Your task to perform on an android device: add a label to a message in the gmail app Image 0: 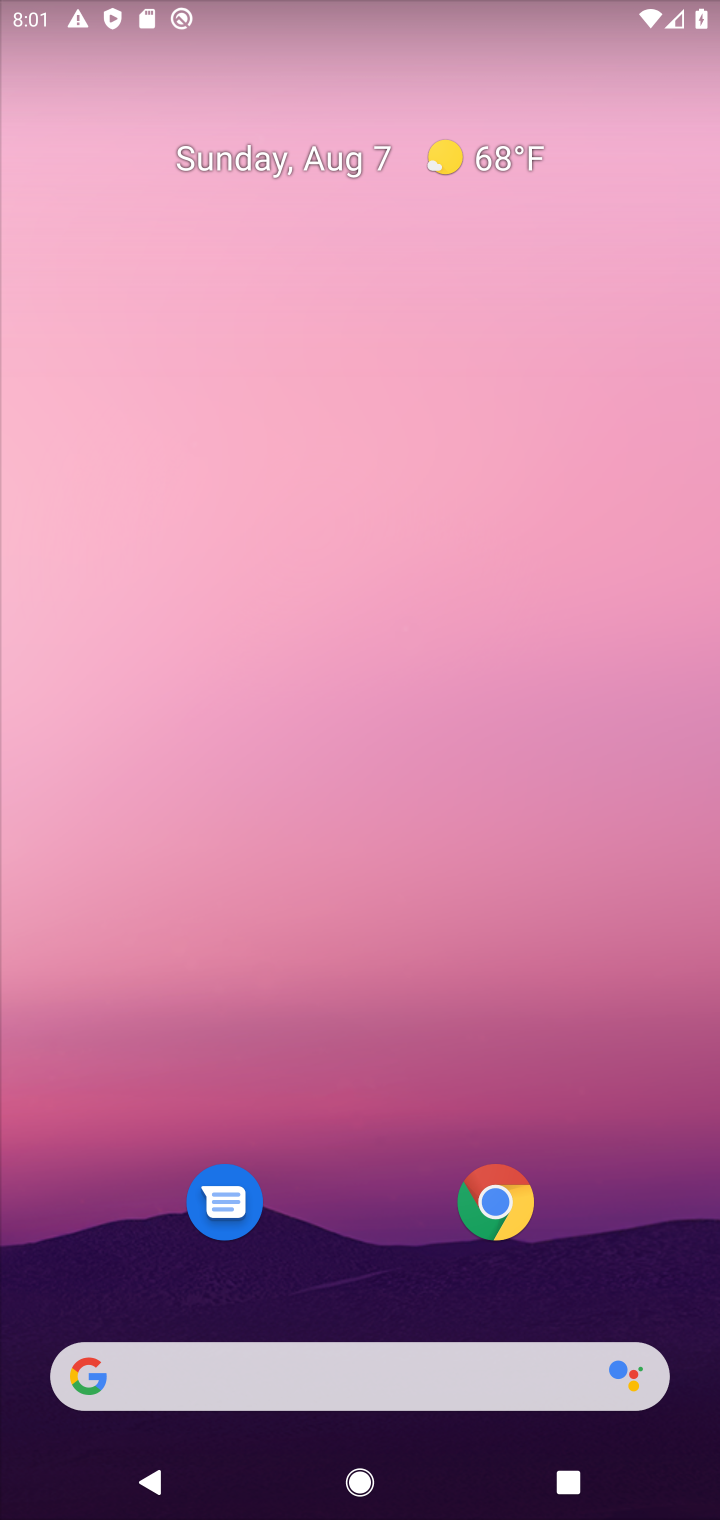
Step 0: drag from (373, 1117) to (588, 95)
Your task to perform on an android device: add a label to a message in the gmail app Image 1: 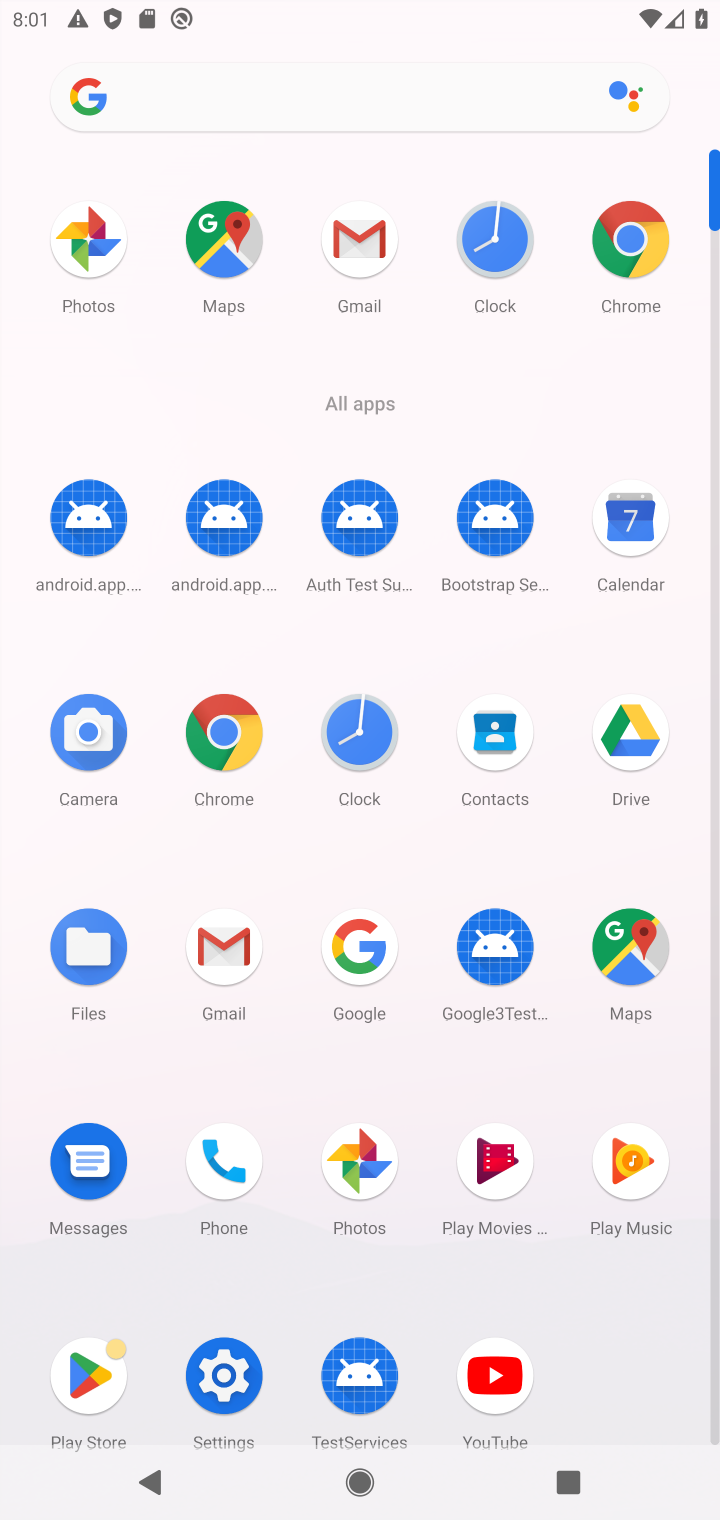
Step 1: click (356, 264)
Your task to perform on an android device: add a label to a message in the gmail app Image 2: 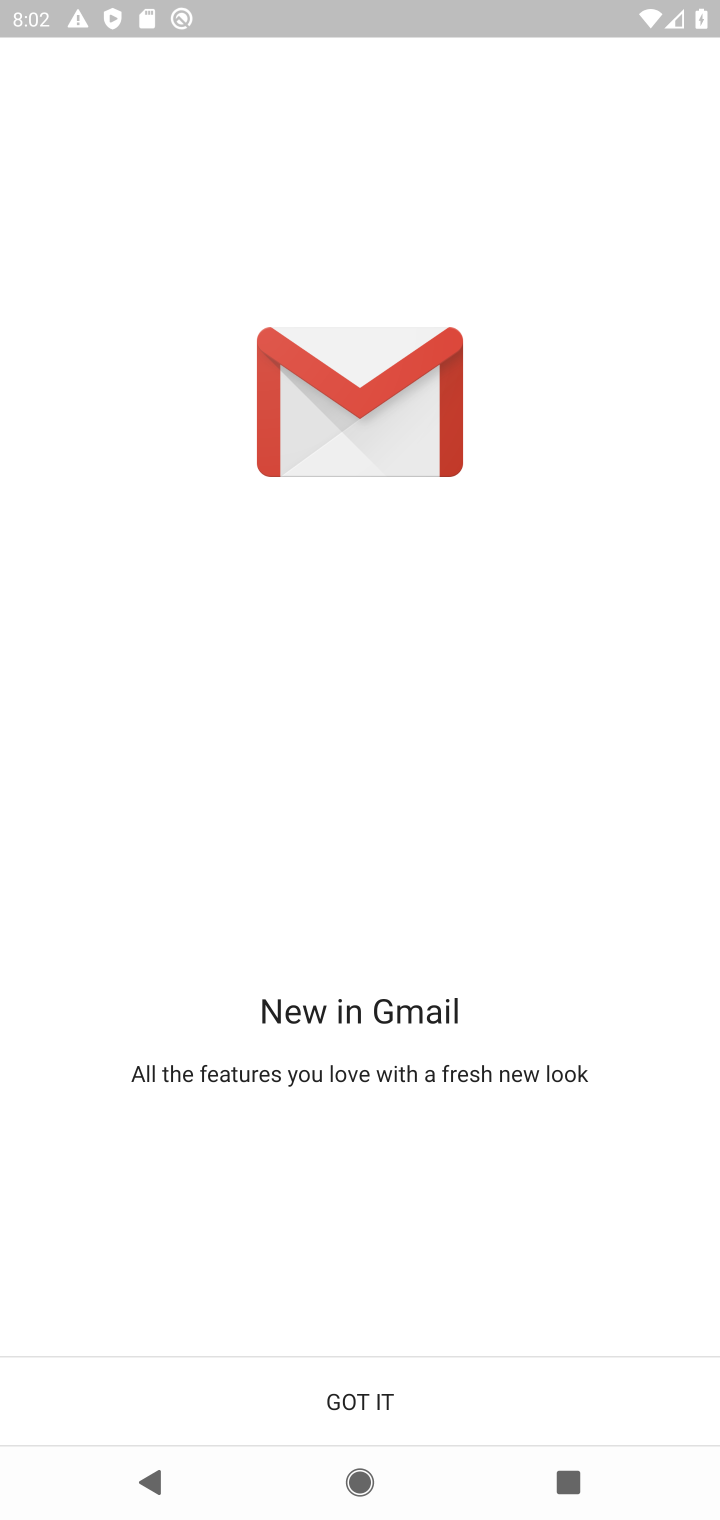
Step 2: press back button
Your task to perform on an android device: add a label to a message in the gmail app Image 3: 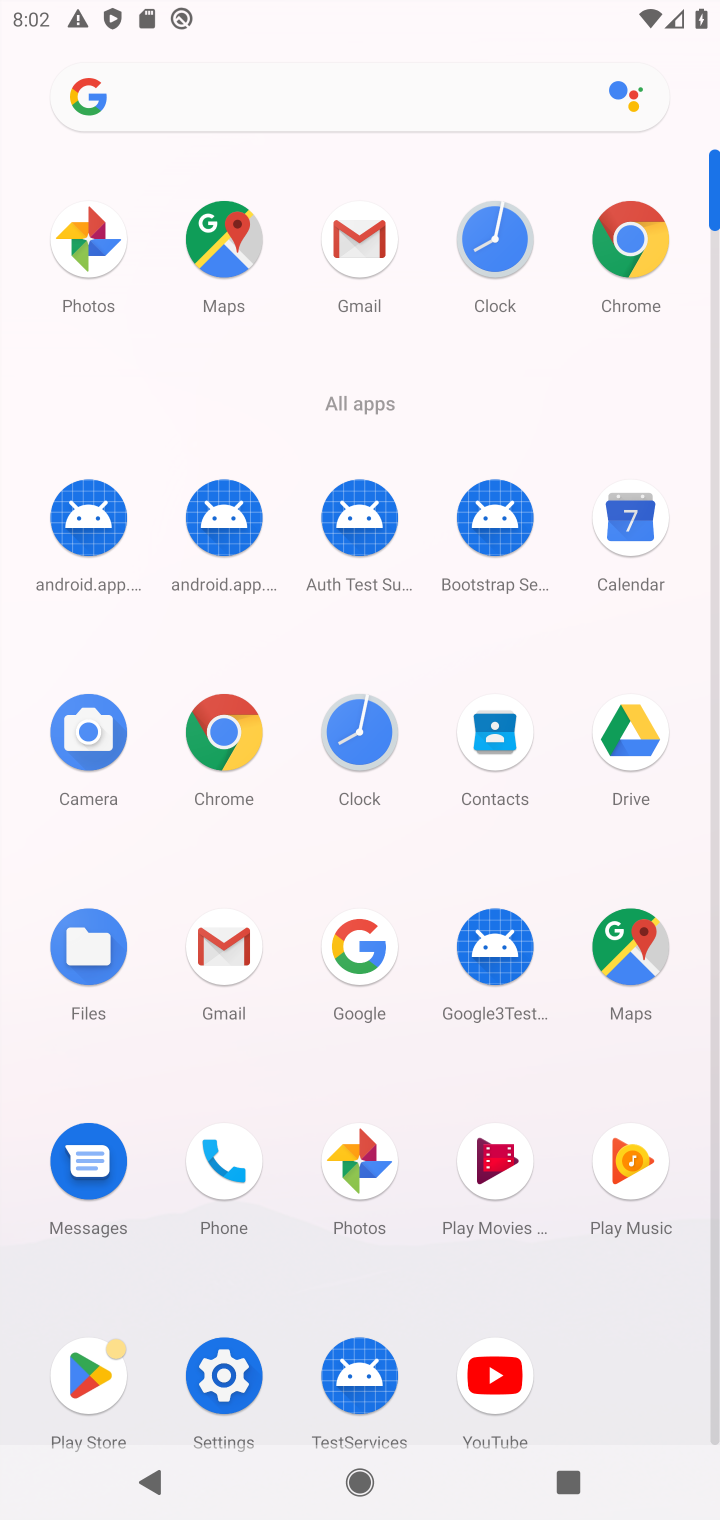
Step 3: click (368, 222)
Your task to perform on an android device: add a label to a message in the gmail app Image 4: 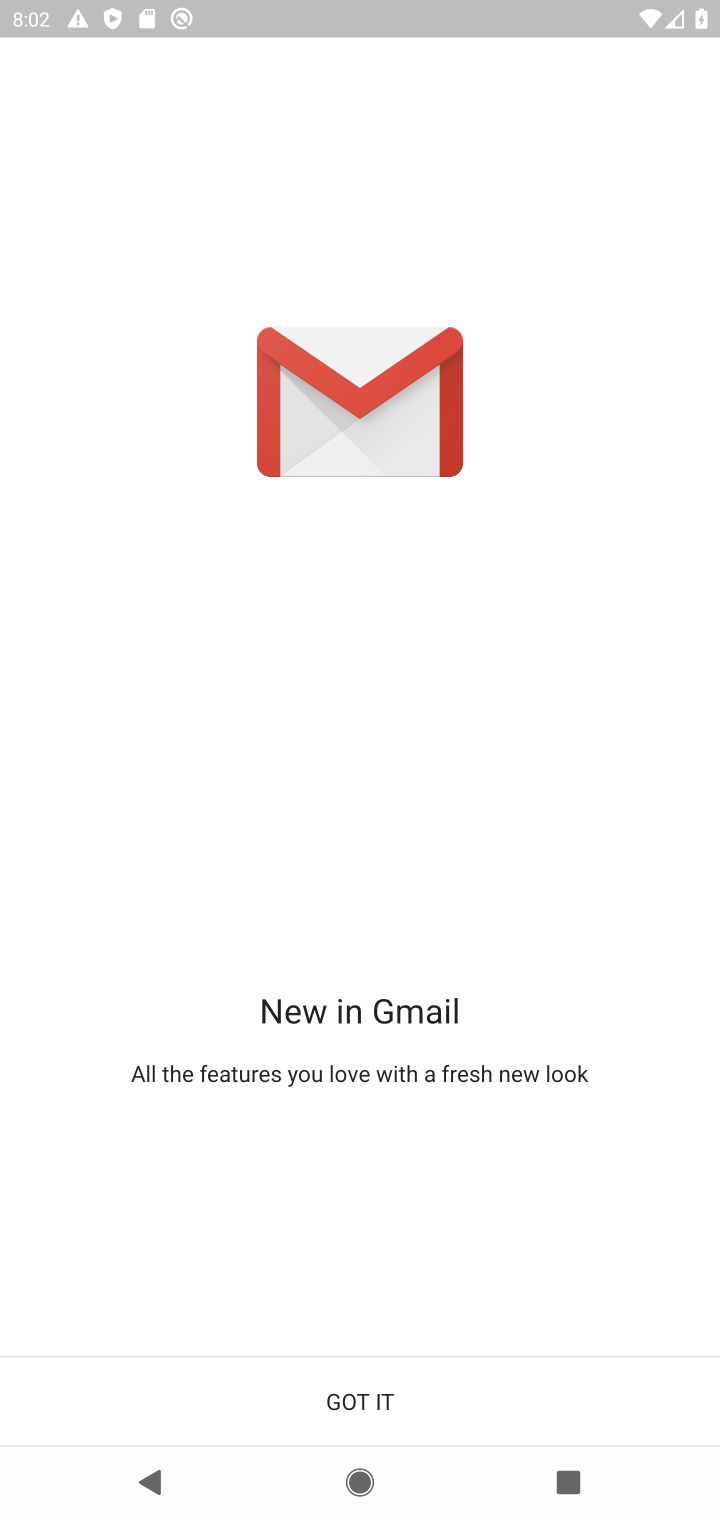
Step 4: click (349, 1427)
Your task to perform on an android device: add a label to a message in the gmail app Image 5: 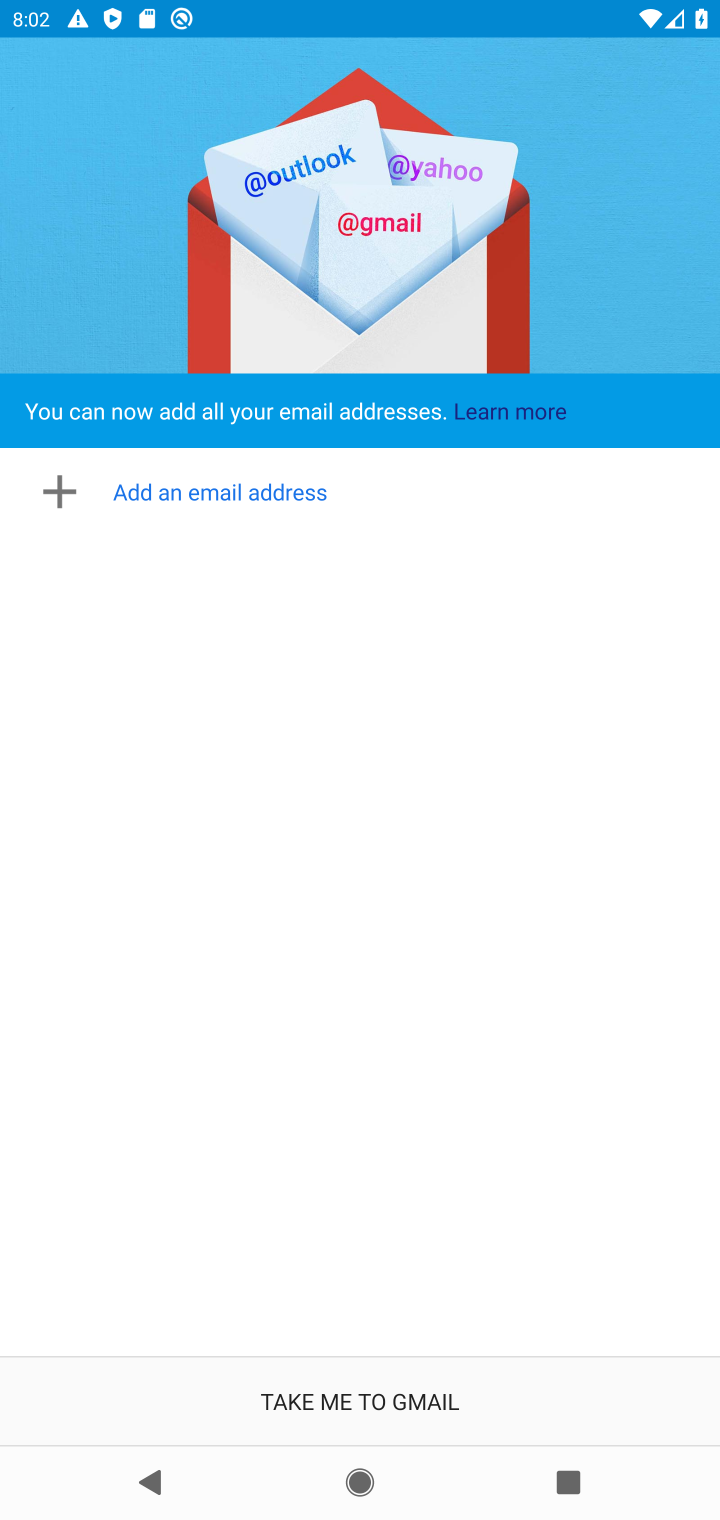
Step 5: click (408, 1396)
Your task to perform on an android device: add a label to a message in the gmail app Image 6: 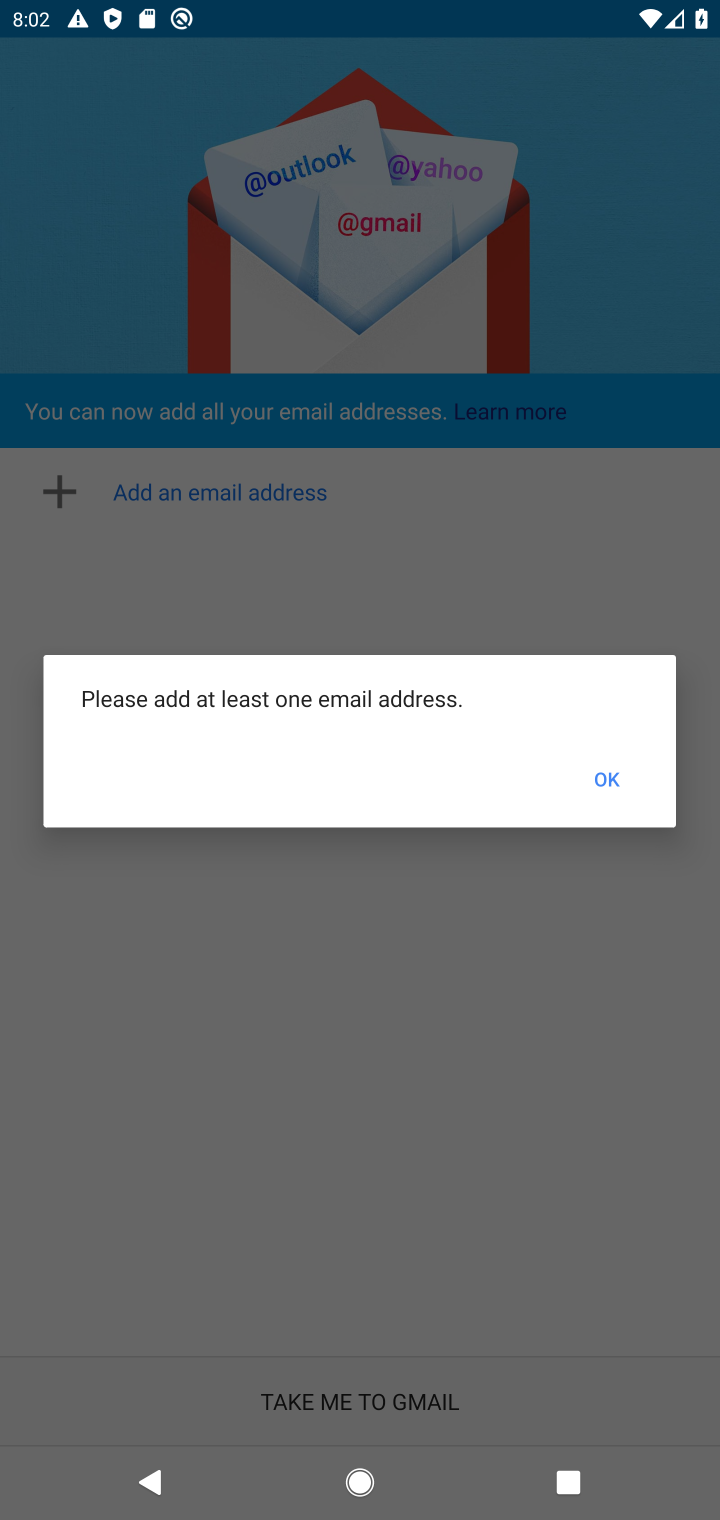
Step 6: click (609, 776)
Your task to perform on an android device: add a label to a message in the gmail app Image 7: 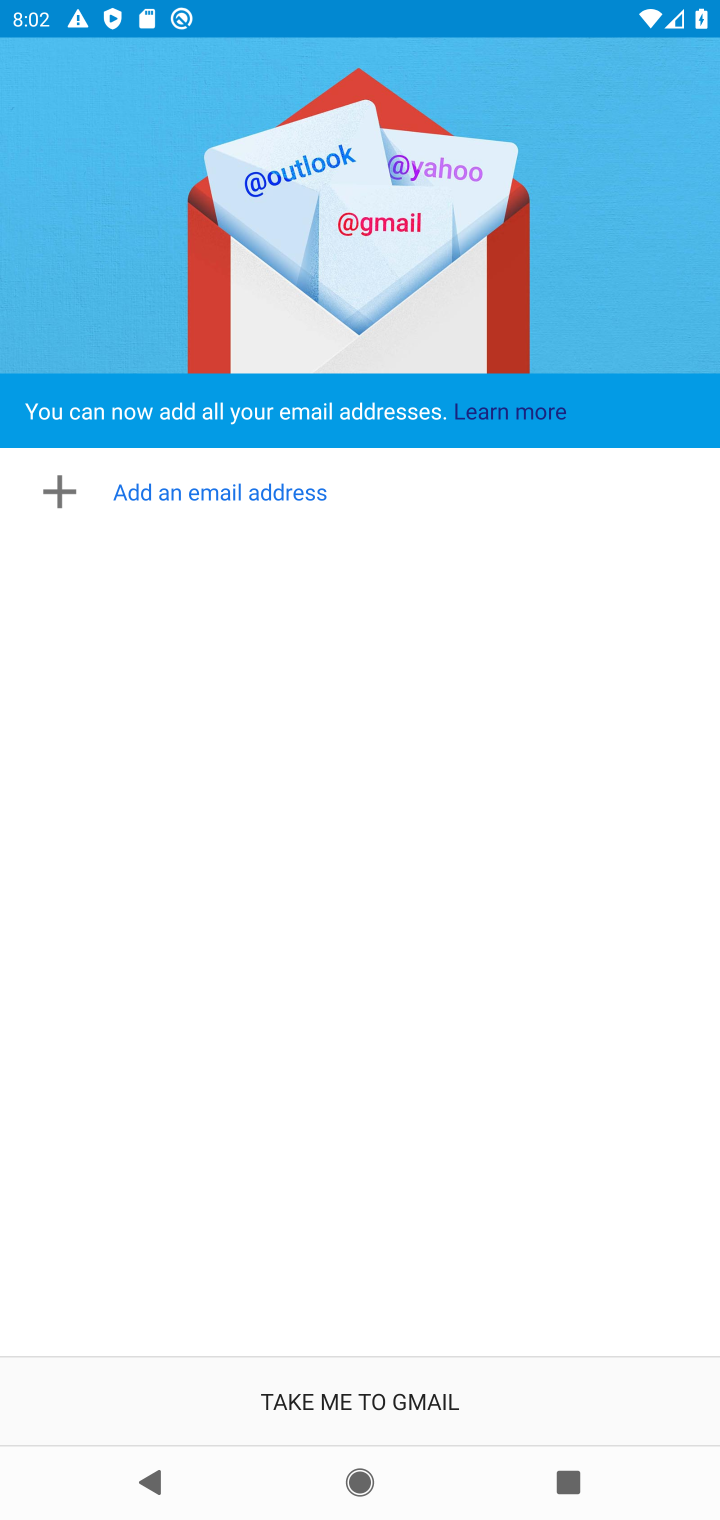
Step 7: task complete